Your task to perform on an android device: check out phone information Image 0: 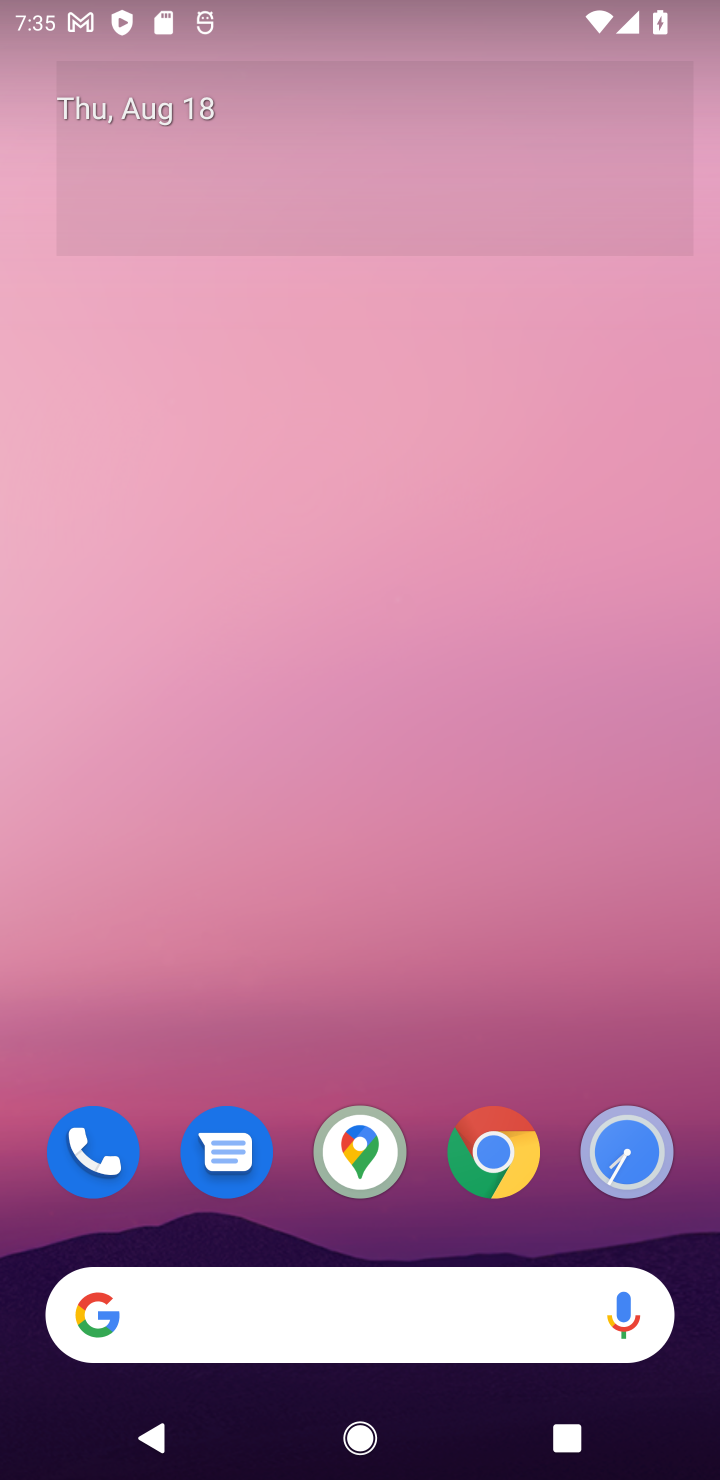
Step 0: press home button
Your task to perform on an android device: check out phone information Image 1: 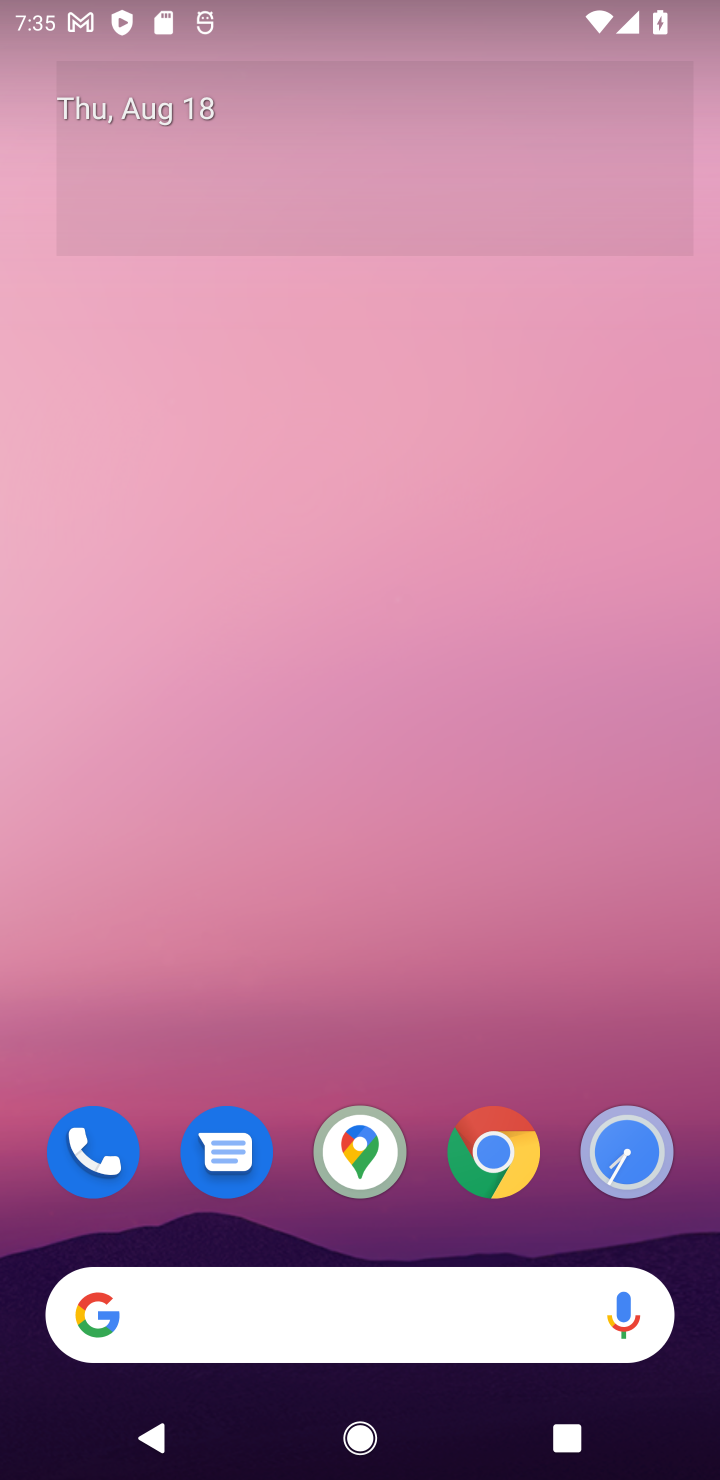
Step 1: drag from (424, 1222) to (557, 1)
Your task to perform on an android device: check out phone information Image 2: 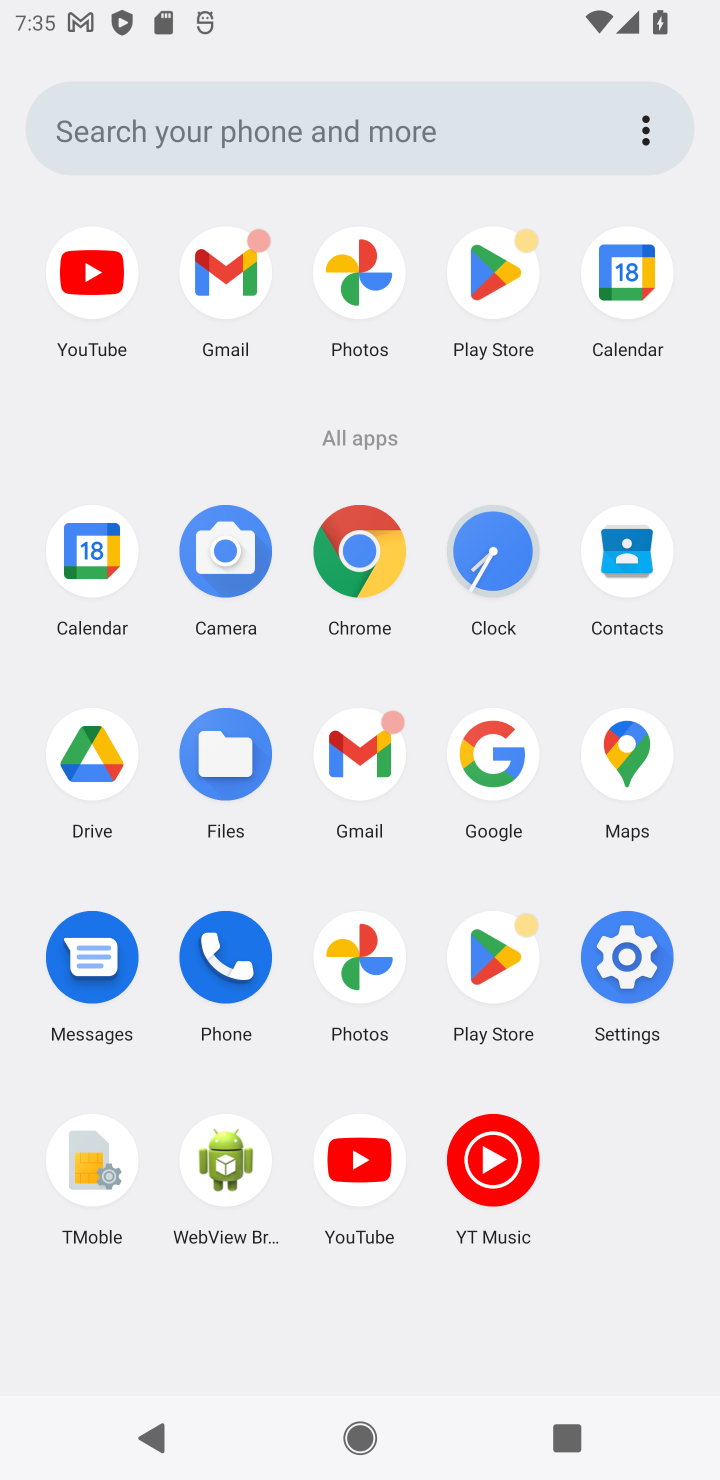
Step 2: click (633, 957)
Your task to perform on an android device: check out phone information Image 3: 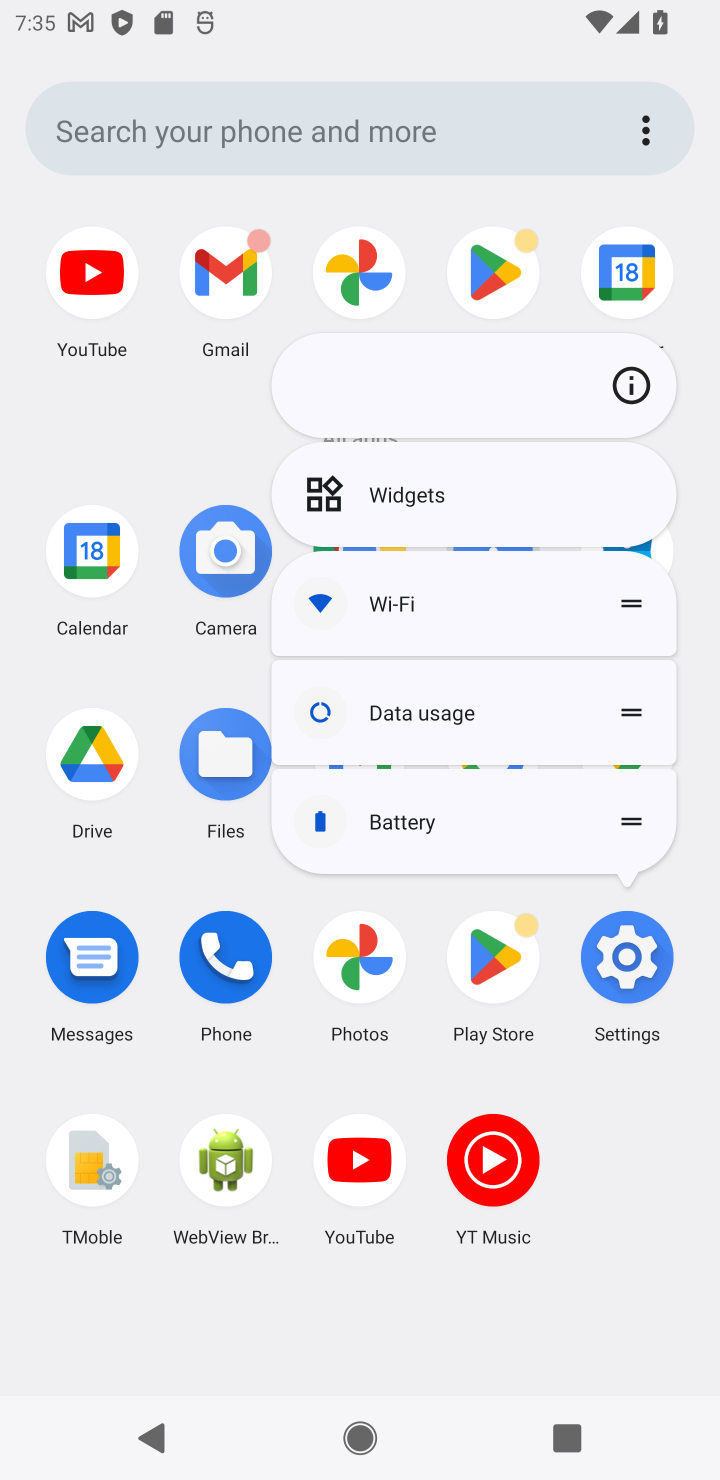
Step 3: click (633, 951)
Your task to perform on an android device: check out phone information Image 4: 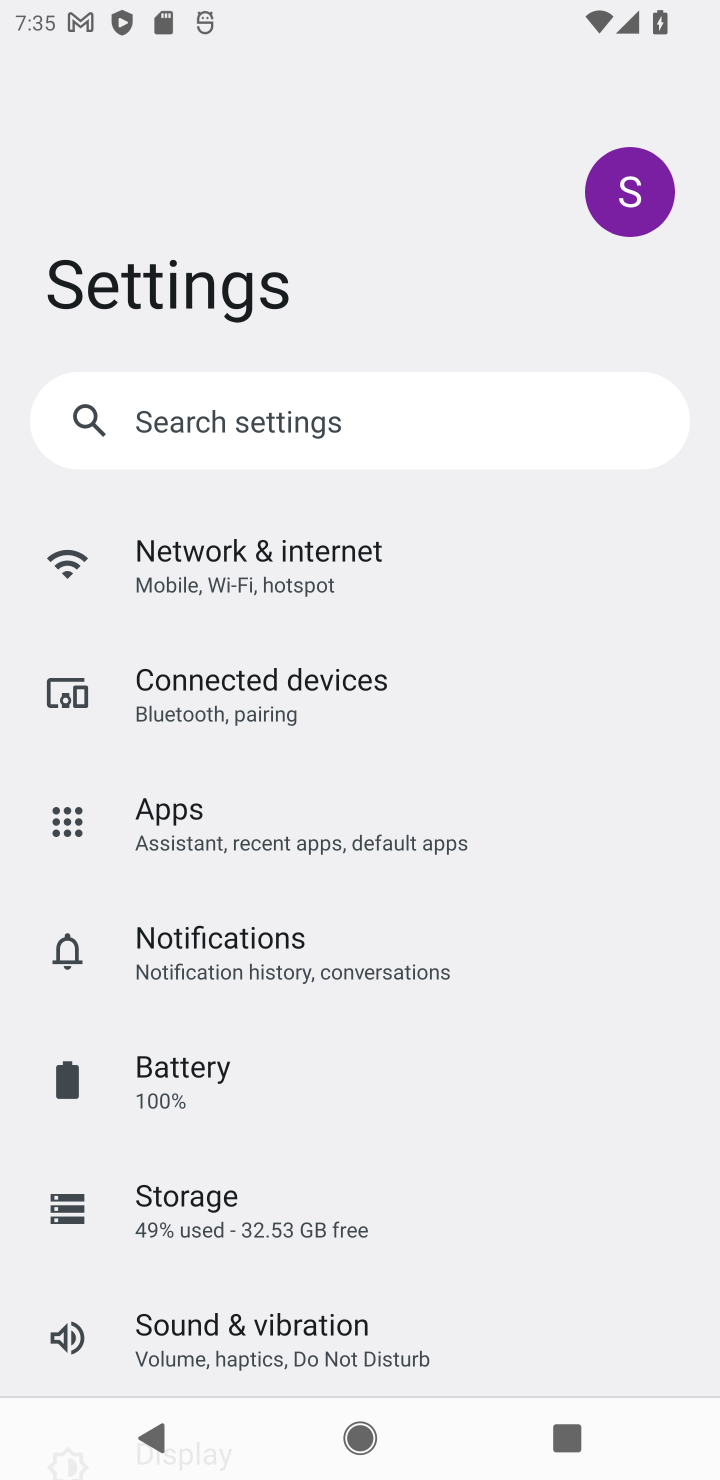
Step 4: drag from (561, 1317) to (536, 15)
Your task to perform on an android device: check out phone information Image 5: 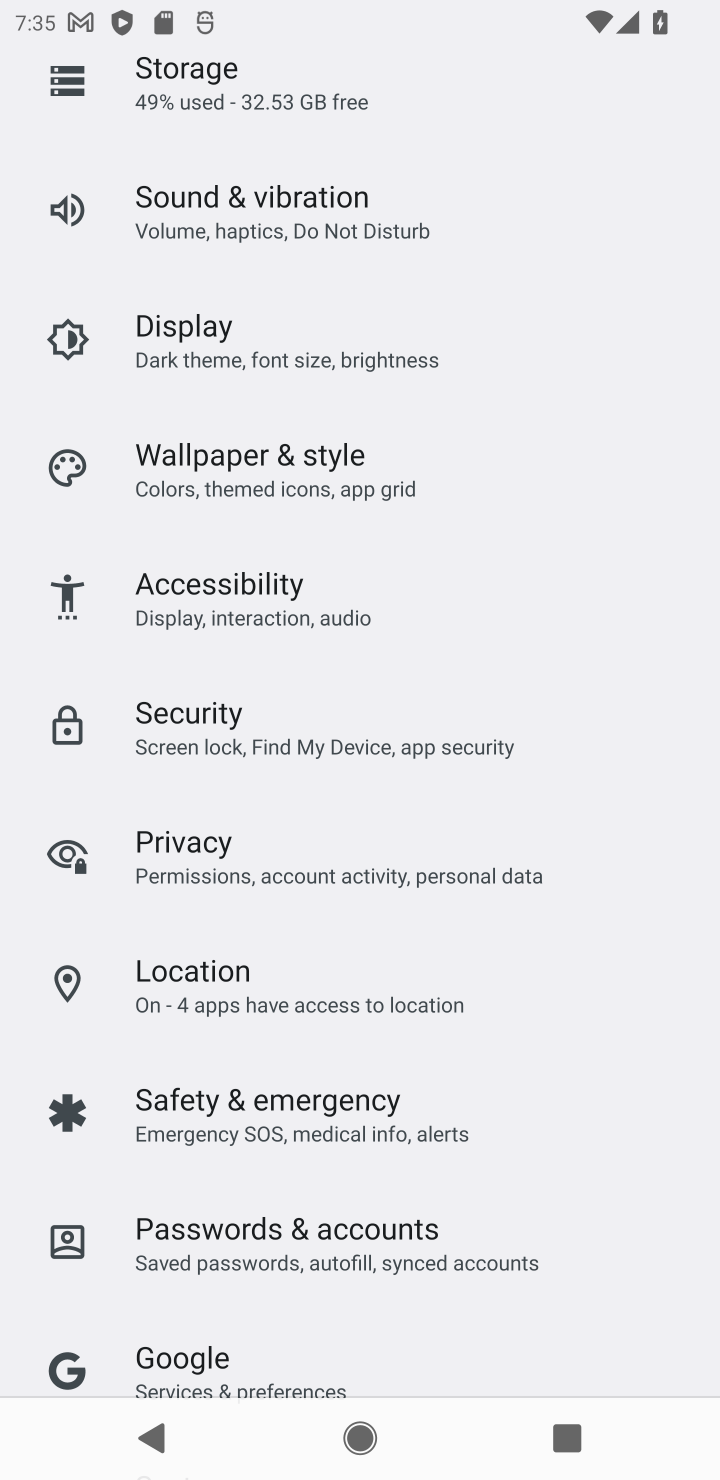
Step 5: drag from (535, 1054) to (576, 0)
Your task to perform on an android device: check out phone information Image 6: 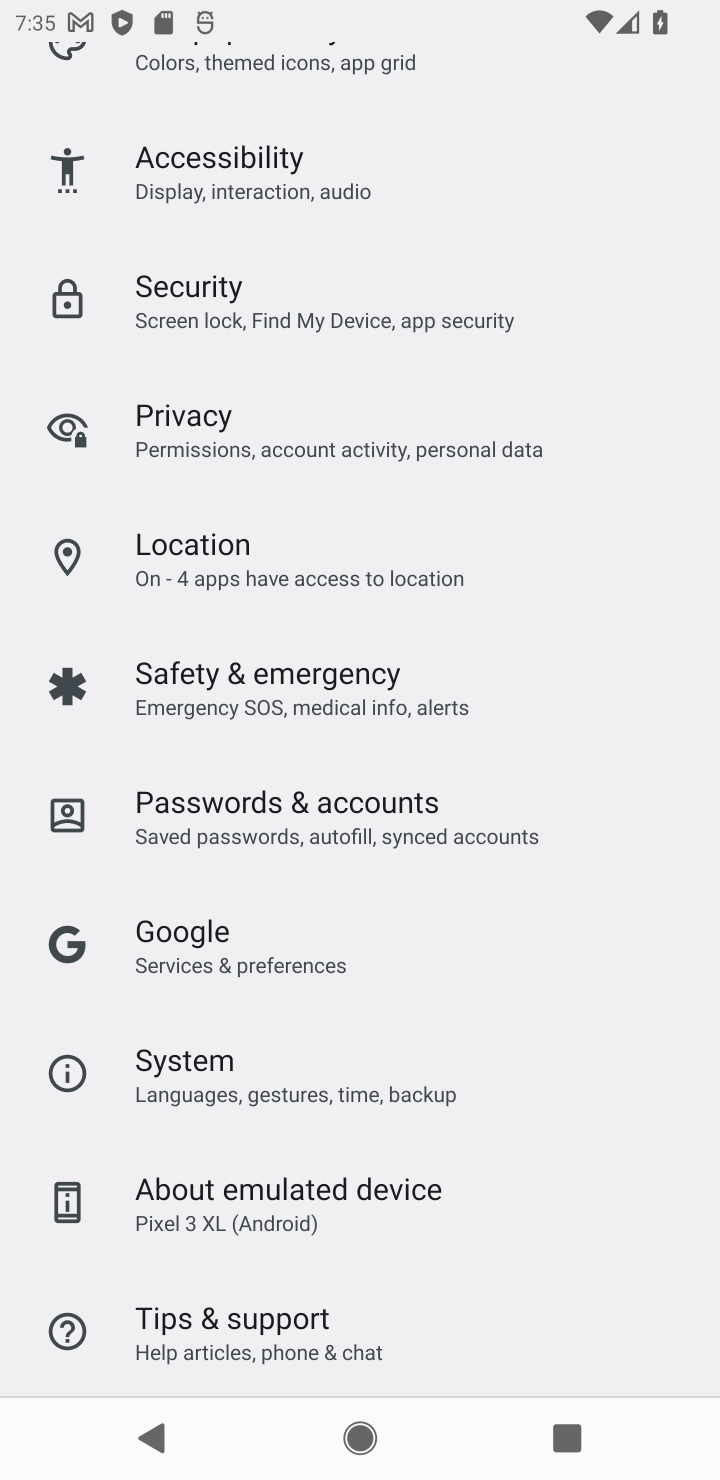
Step 6: click (227, 1196)
Your task to perform on an android device: check out phone information Image 7: 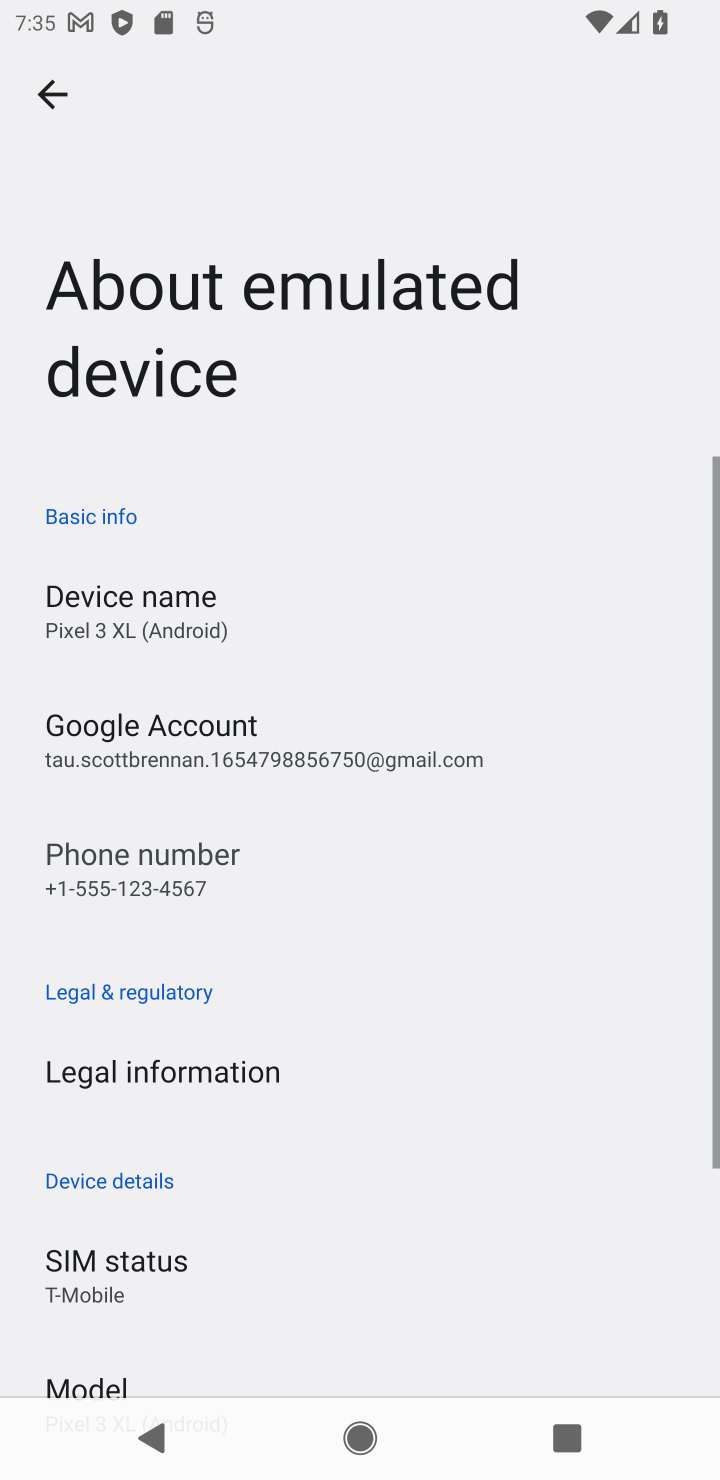
Step 7: task complete